Your task to perform on an android device: When is my next appointment? Image 0: 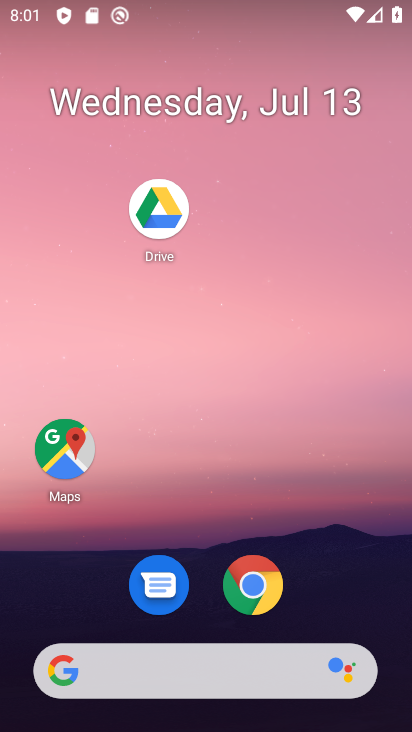
Step 0: press home button
Your task to perform on an android device: When is my next appointment? Image 1: 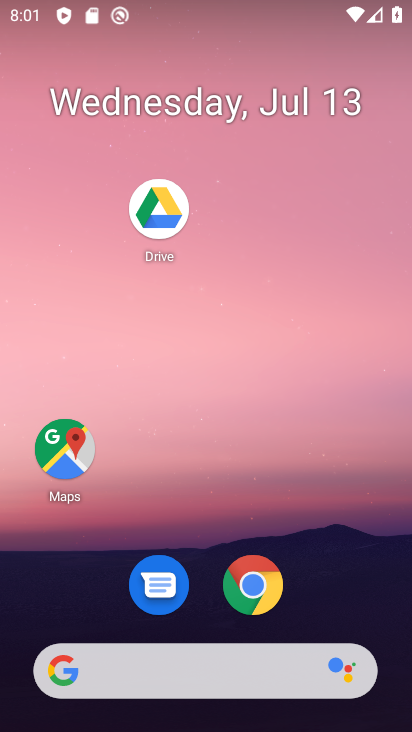
Step 1: drag from (172, 684) to (314, 138)
Your task to perform on an android device: When is my next appointment? Image 2: 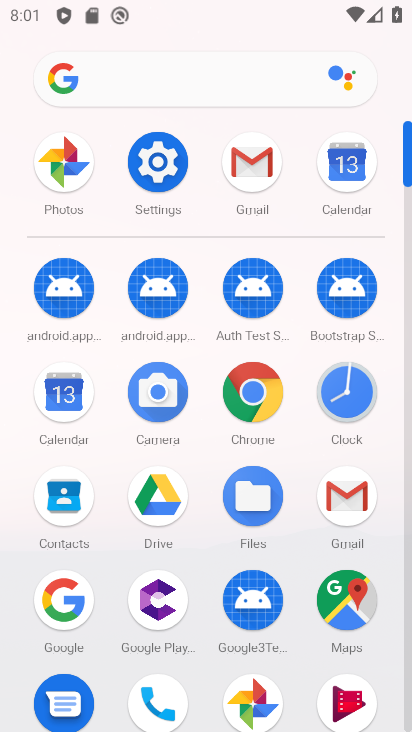
Step 2: click (343, 169)
Your task to perform on an android device: When is my next appointment? Image 3: 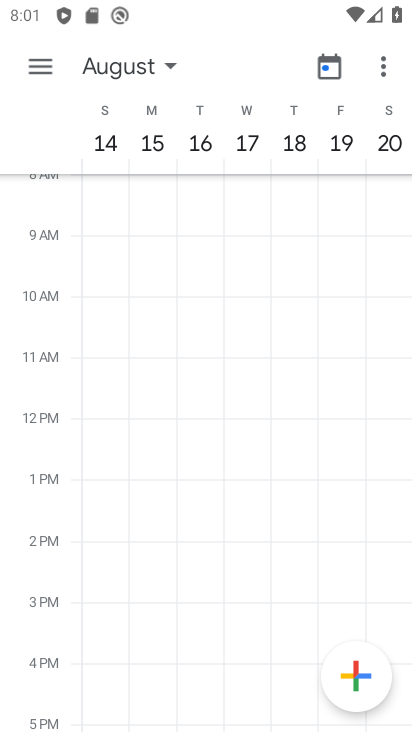
Step 3: click (118, 71)
Your task to perform on an android device: When is my next appointment? Image 4: 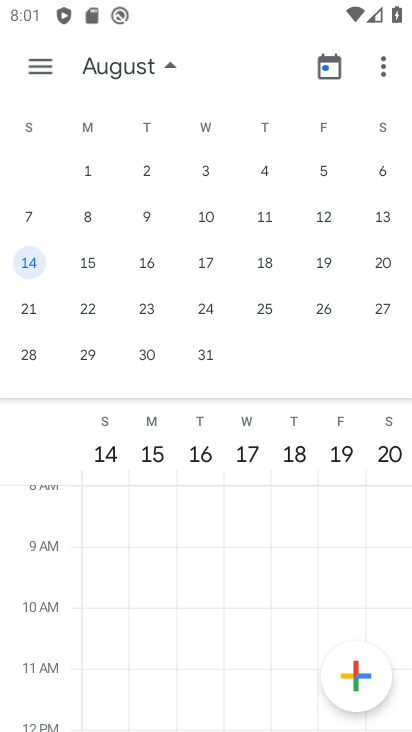
Step 4: drag from (51, 312) to (407, 298)
Your task to perform on an android device: When is my next appointment? Image 5: 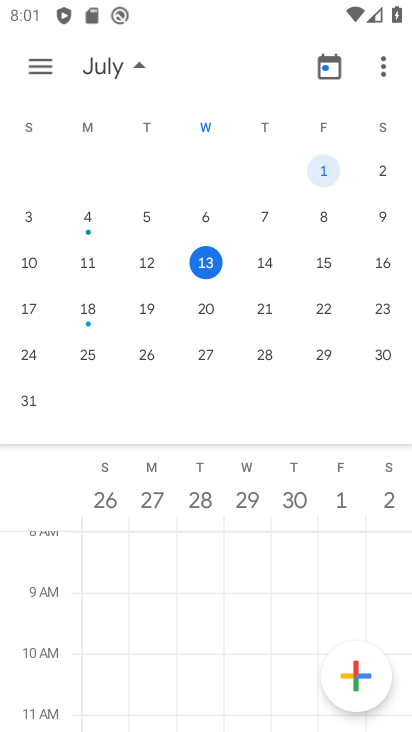
Step 5: click (209, 269)
Your task to perform on an android device: When is my next appointment? Image 6: 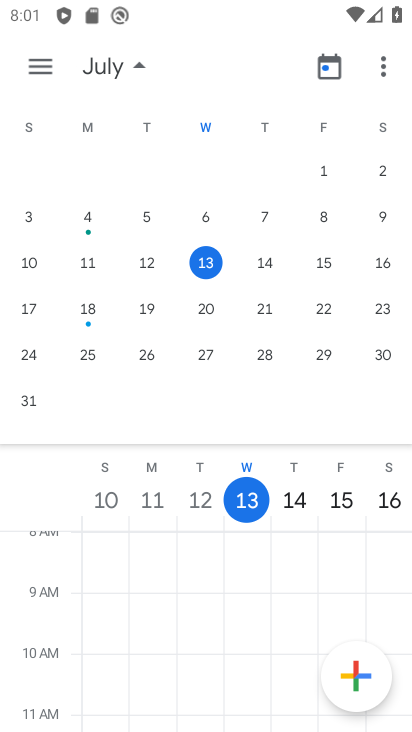
Step 6: click (43, 63)
Your task to perform on an android device: When is my next appointment? Image 7: 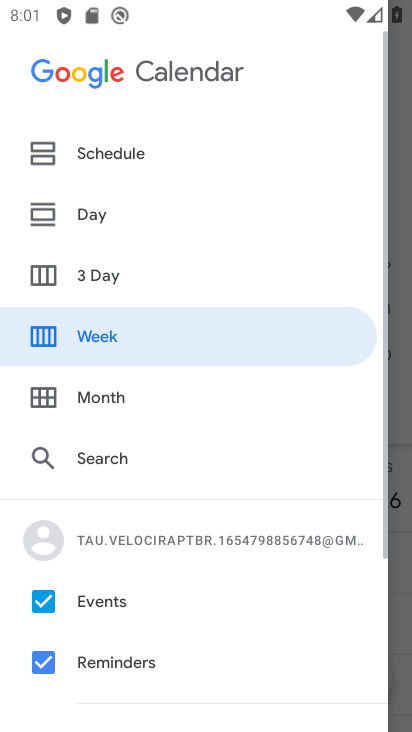
Step 7: click (118, 156)
Your task to perform on an android device: When is my next appointment? Image 8: 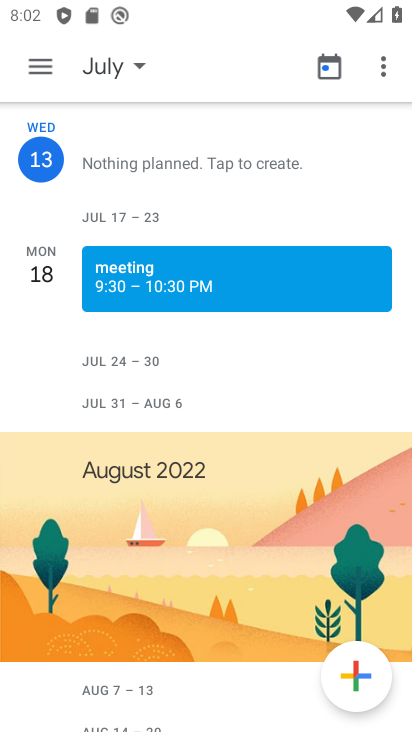
Step 8: task complete